Your task to perform on an android device: change the upload size in google photos Image 0: 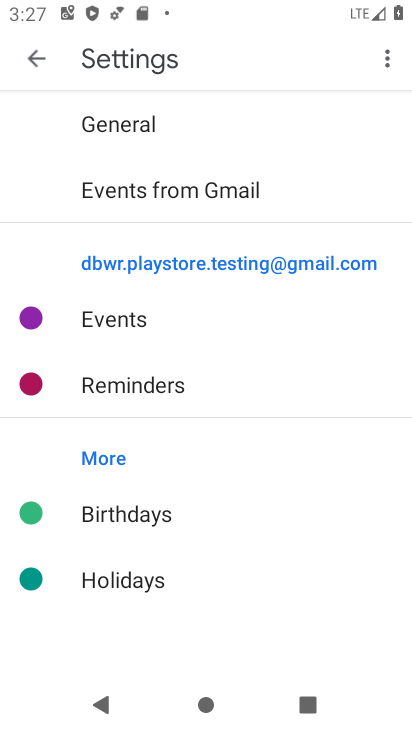
Step 0: press home button
Your task to perform on an android device: change the upload size in google photos Image 1: 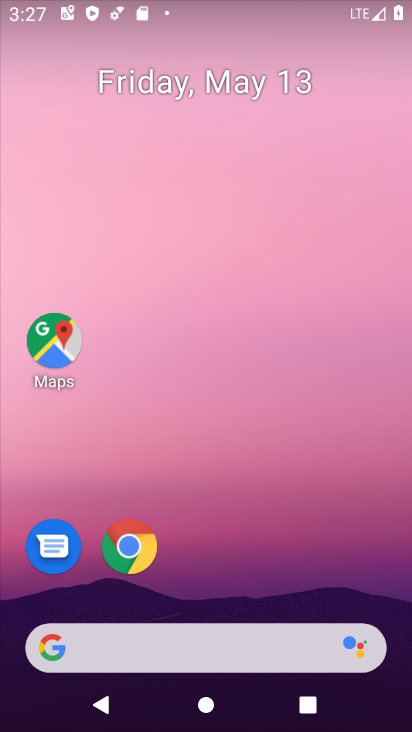
Step 1: drag from (197, 582) to (197, 86)
Your task to perform on an android device: change the upload size in google photos Image 2: 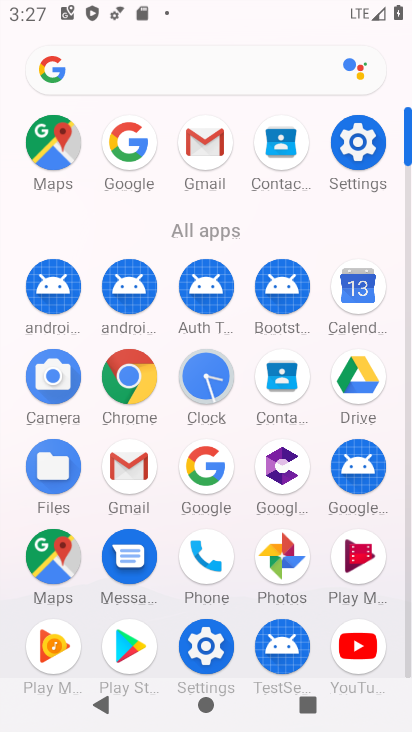
Step 2: click (274, 554)
Your task to perform on an android device: change the upload size in google photos Image 3: 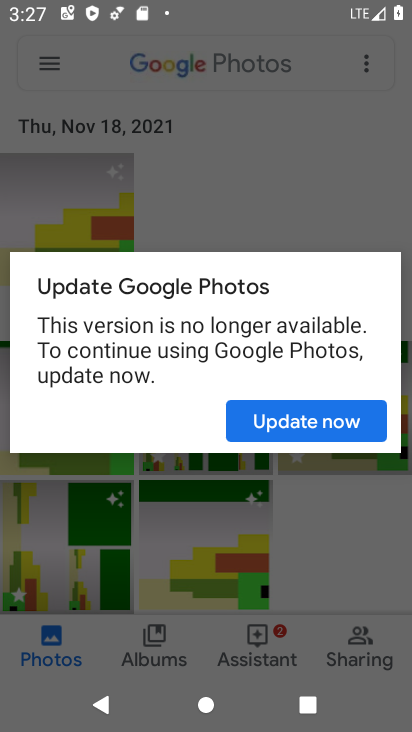
Step 3: click (280, 428)
Your task to perform on an android device: change the upload size in google photos Image 4: 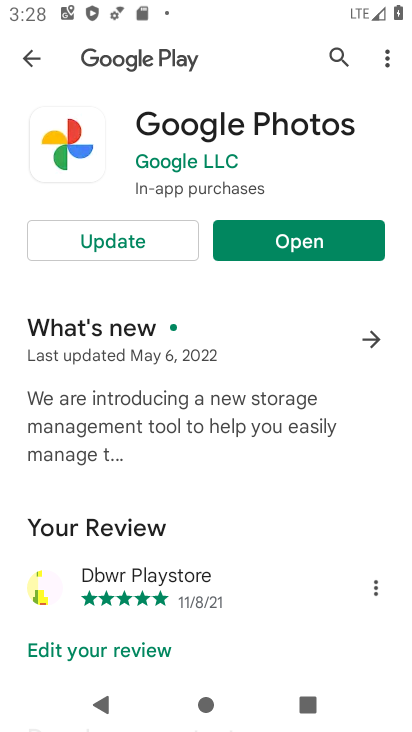
Step 4: click (303, 255)
Your task to perform on an android device: change the upload size in google photos Image 5: 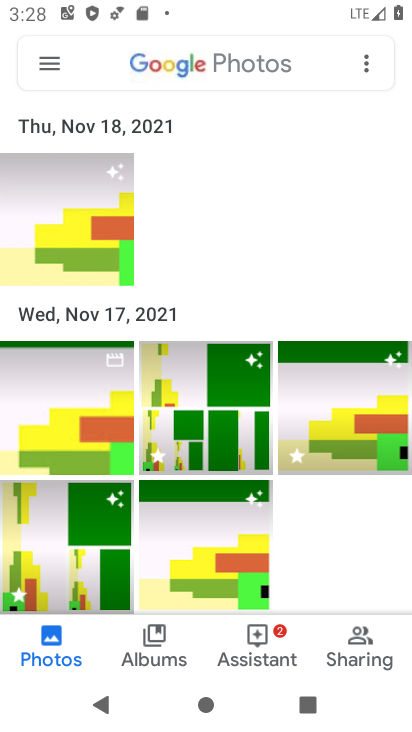
Step 5: click (56, 63)
Your task to perform on an android device: change the upload size in google photos Image 6: 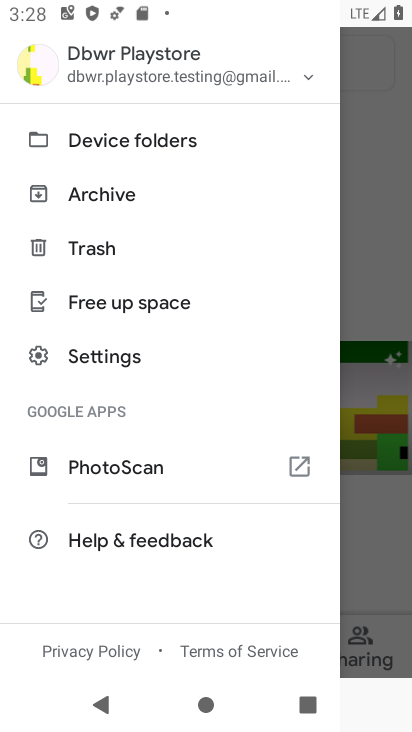
Step 6: click (116, 372)
Your task to perform on an android device: change the upload size in google photos Image 7: 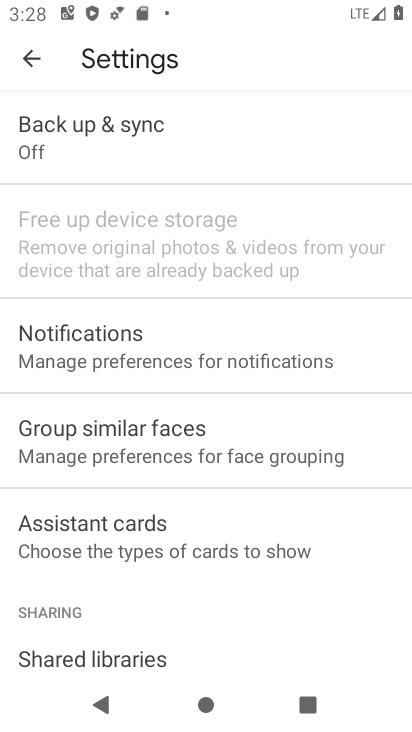
Step 7: drag from (43, 592) to (88, 260)
Your task to perform on an android device: change the upload size in google photos Image 8: 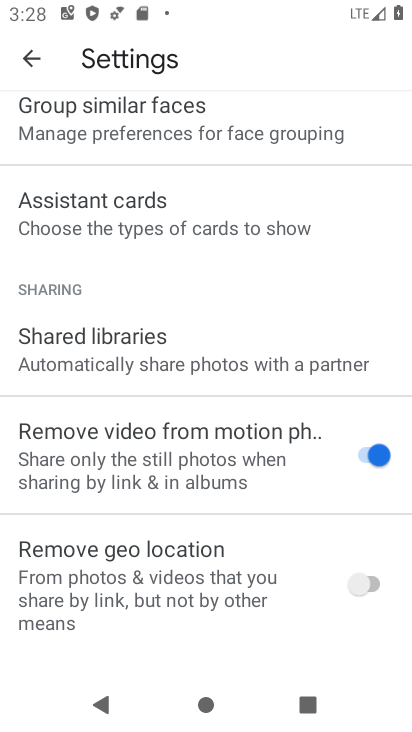
Step 8: drag from (86, 434) to (120, 198)
Your task to perform on an android device: change the upload size in google photos Image 9: 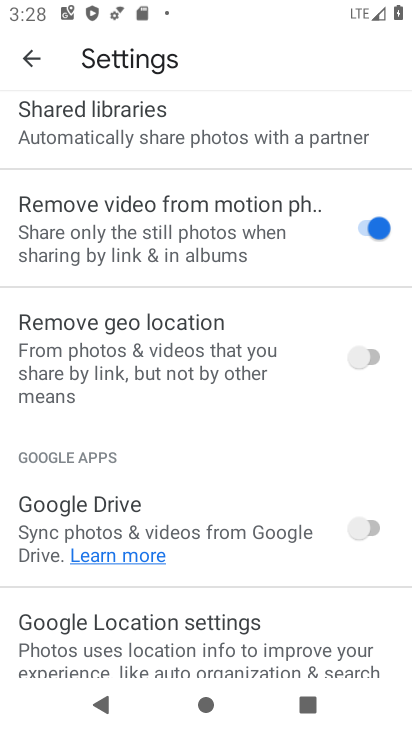
Step 9: drag from (230, 216) to (197, 654)
Your task to perform on an android device: change the upload size in google photos Image 10: 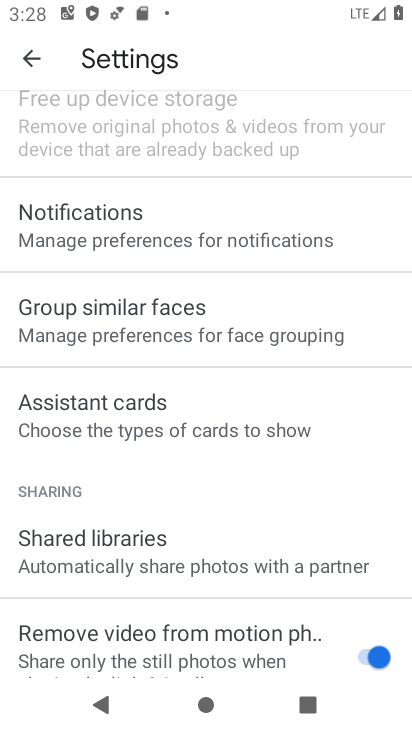
Step 10: drag from (216, 264) to (137, 714)
Your task to perform on an android device: change the upload size in google photos Image 11: 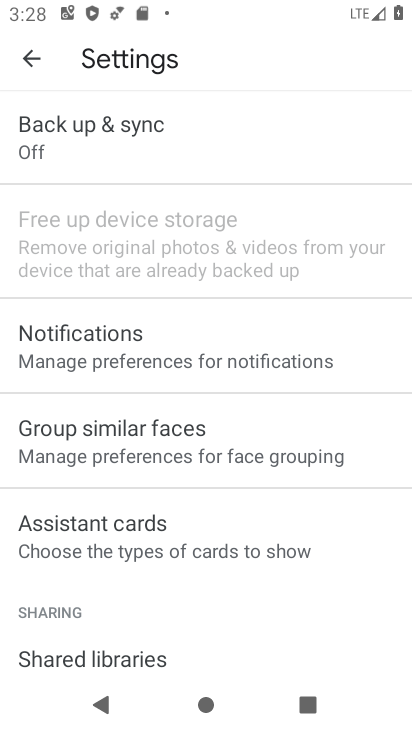
Step 11: click (106, 117)
Your task to perform on an android device: change the upload size in google photos Image 12: 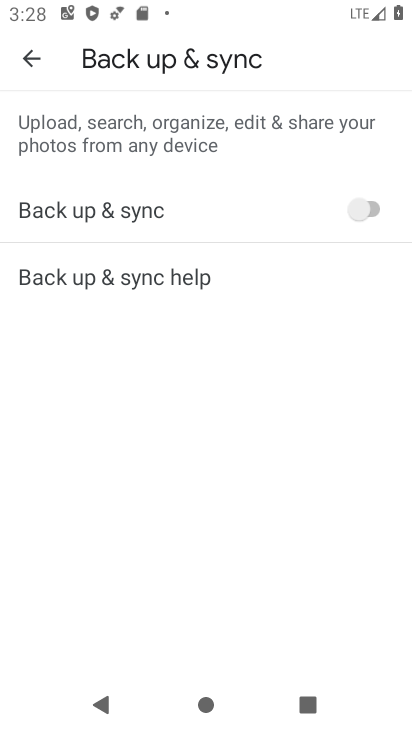
Step 12: click (161, 219)
Your task to perform on an android device: change the upload size in google photos Image 13: 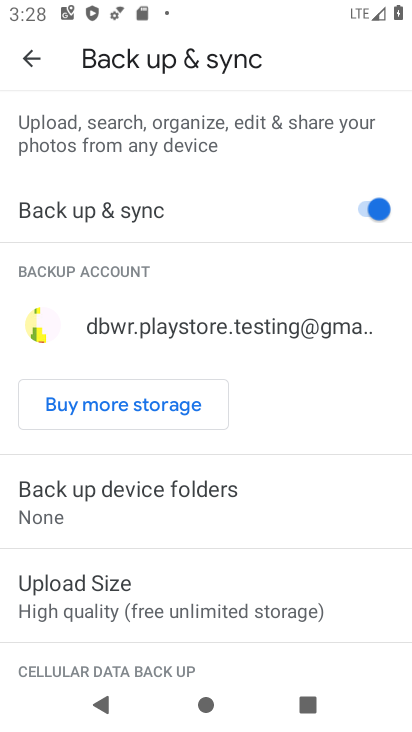
Step 13: click (246, 595)
Your task to perform on an android device: change the upload size in google photos Image 14: 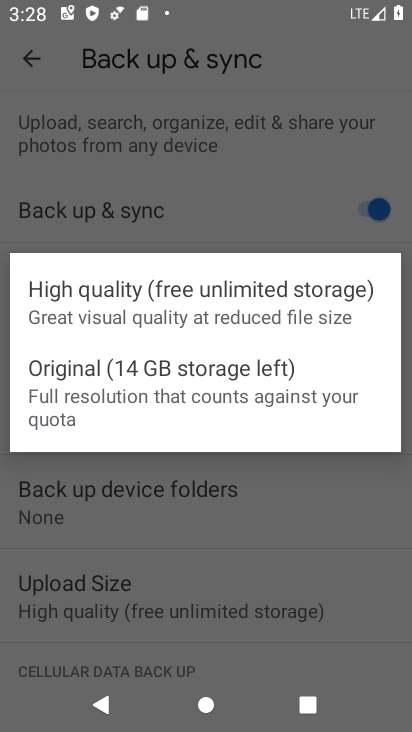
Step 14: click (230, 417)
Your task to perform on an android device: change the upload size in google photos Image 15: 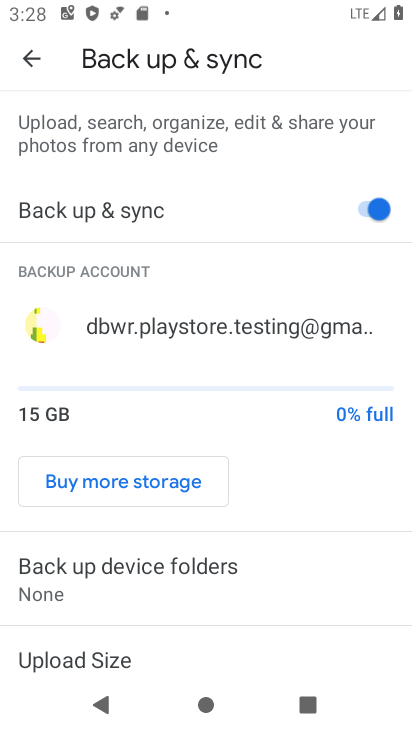
Step 15: task complete